Your task to perform on an android device: see sites visited before in the chrome app Image 0: 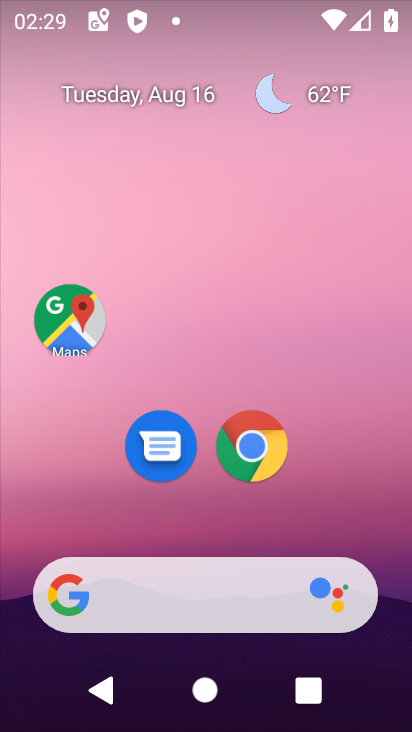
Step 0: press home button
Your task to perform on an android device: see sites visited before in the chrome app Image 1: 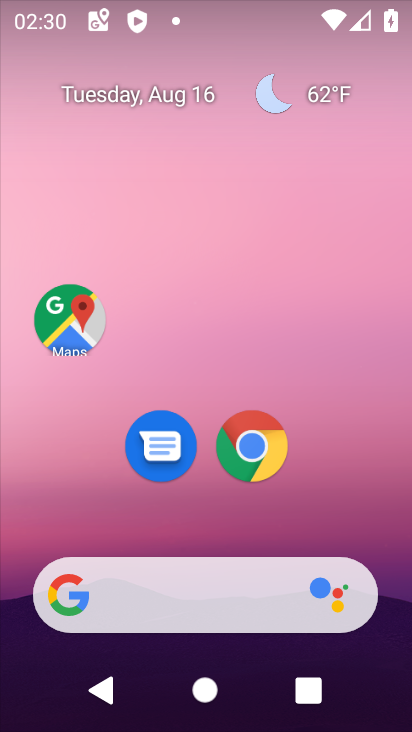
Step 1: click (253, 443)
Your task to perform on an android device: see sites visited before in the chrome app Image 2: 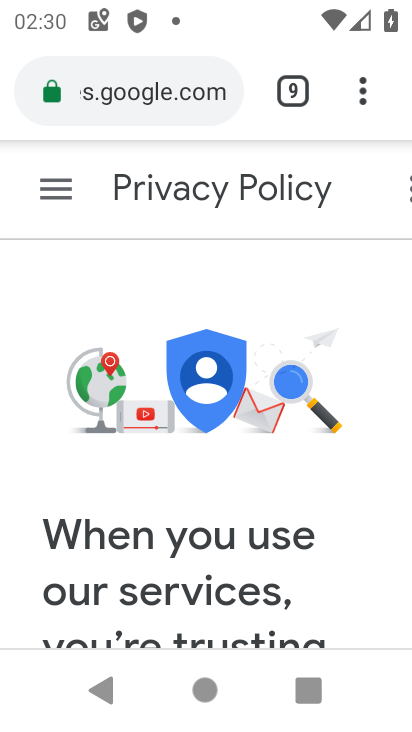
Step 2: click (285, 87)
Your task to perform on an android device: see sites visited before in the chrome app Image 3: 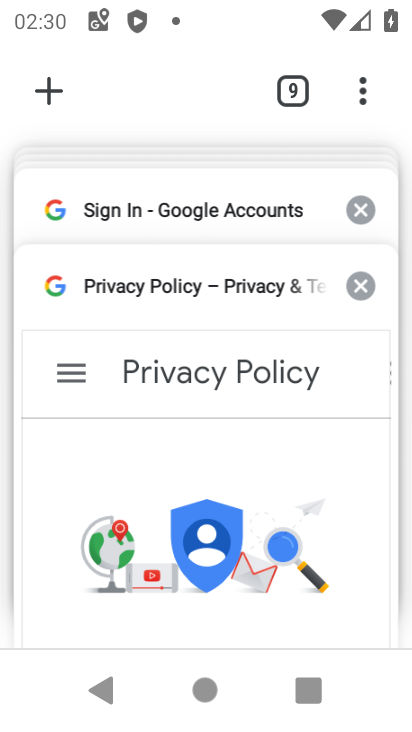
Step 3: click (360, 206)
Your task to perform on an android device: see sites visited before in the chrome app Image 4: 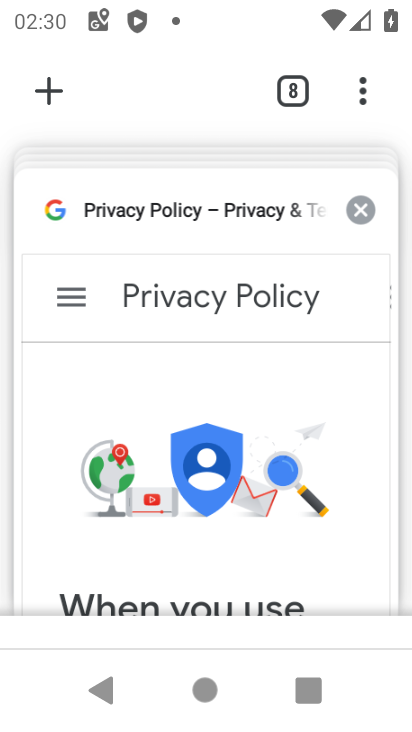
Step 4: click (360, 206)
Your task to perform on an android device: see sites visited before in the chrome app Image 5: 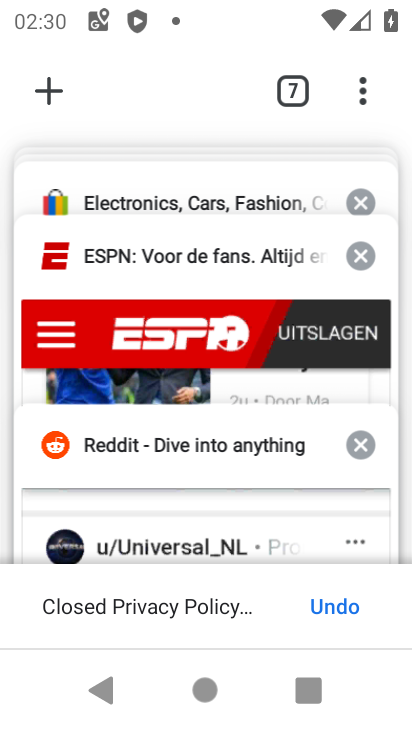
Step 5: click (360, 206)
Your task to perform on an android device: see sites visited before in the chrome app Image 6: 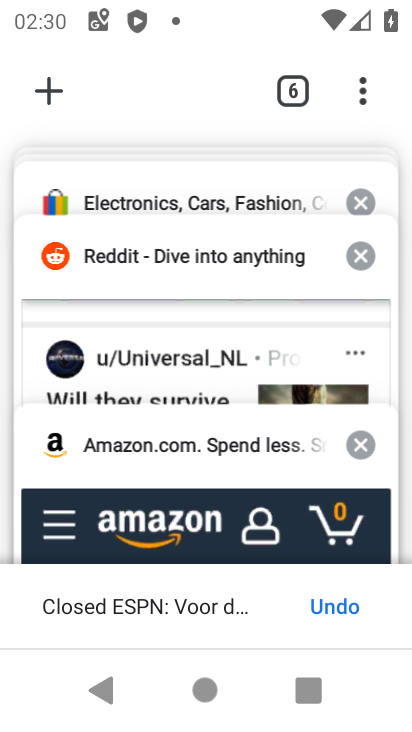
Step 6: click (360, 206)
Your task to perform on an android device: see sites visited before in the chrome app Image 7: 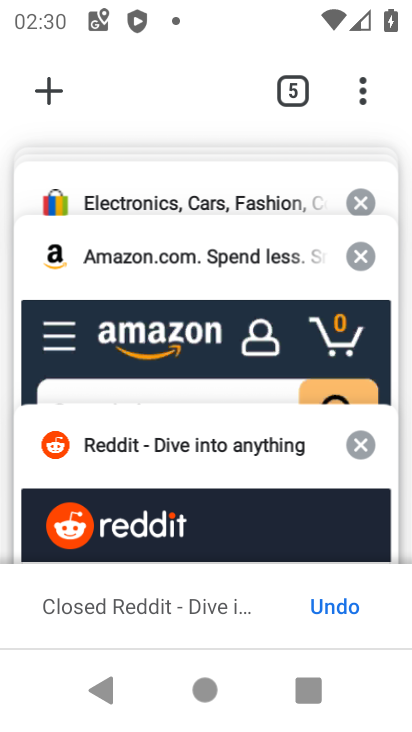
Step 7: click (360, 201)
Your task to perform on an android device: see sites visited before in the chrome app Image 8: 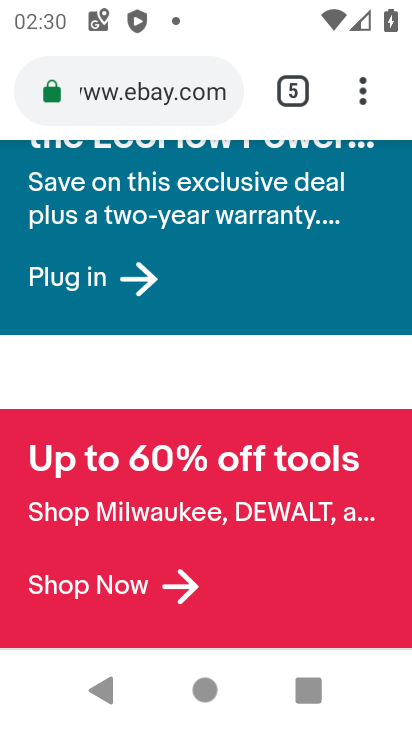
Step 8: click (291, 91)
Your task to perform on an android device: see sites visited before in the chrome app Image 9: 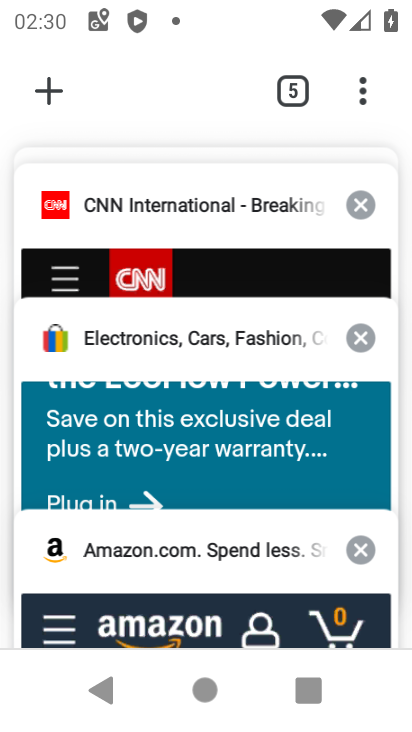
Step 9: click (361, 200)
Your task to perform on an android device: see sites visited before in the chrome app Image 10: 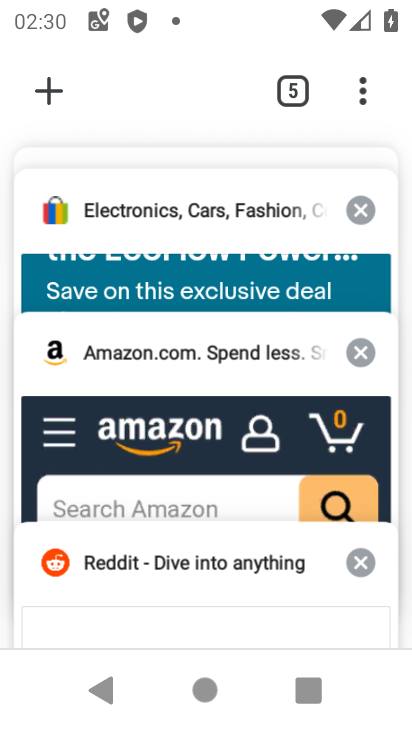
Step 10: click (361, 203)
Your task to perform on an android device: see sites visited before in the chrome app Image 11: 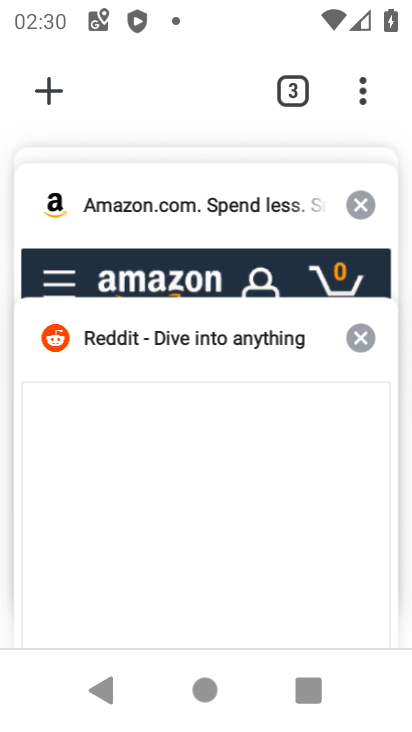
Step 11: click (359, 206)
Your task to perform on an android device: see sites visited before in the chrome app Image 12: 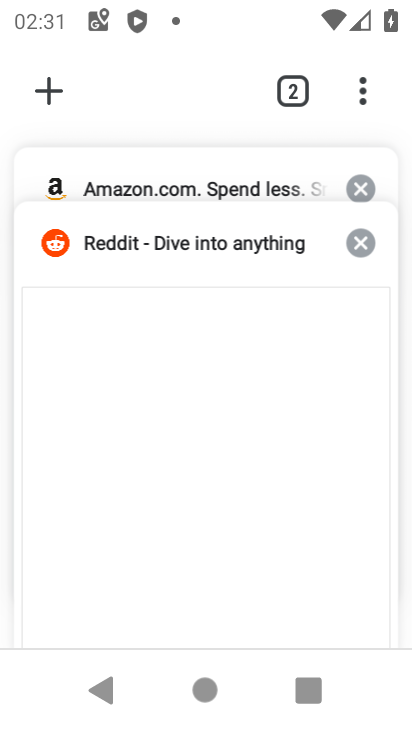
Step 12: click (361, 240)
Your task to perform on an android device: see sites visited before in the chrome app Image 13: 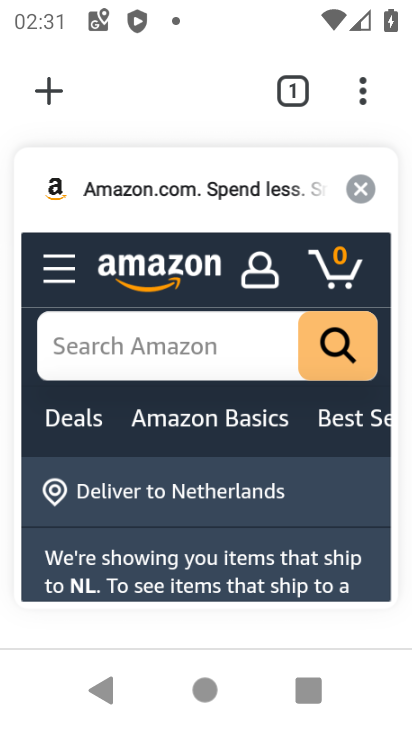
Step 13: click (360, 185)
Your task to perform on an android device: see sites visited before in the chrome app Image 14: 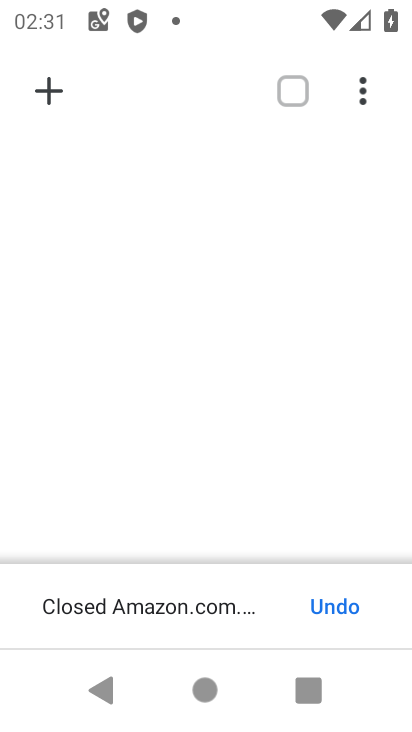
Step 14: click (55, 83)
Your task to perform on an android device: see sites visited before in the chrome app Image 15: 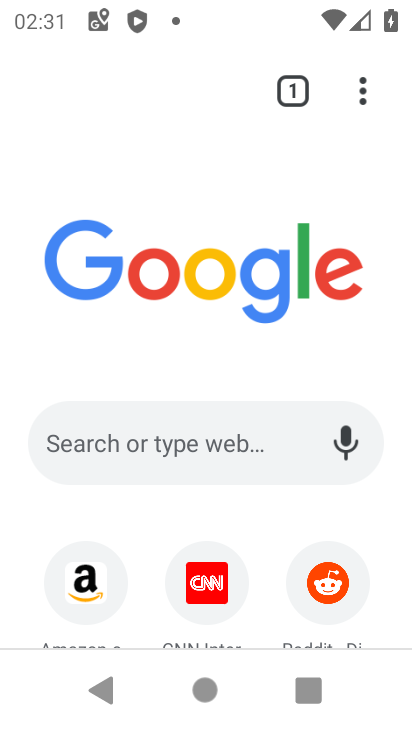
Step 15: click (365, 89)
Your task to perform on an android device: see sites visited before in the chrome app Image 16: 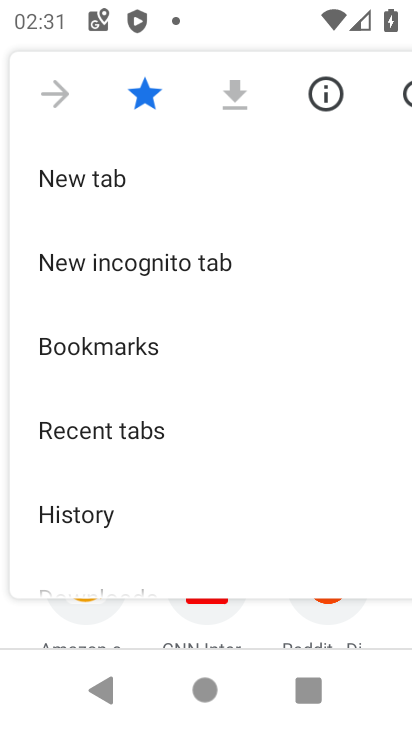
Step 16: click (151, 517)
Your task to perform on an android device: see sites visited before in the chrome app Image 17: 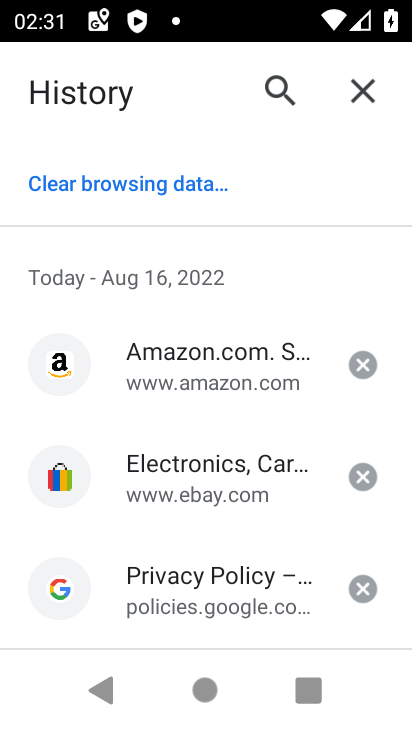
Step 17: task complete